Your task to perform on an android device: toggle javascript in the chrome app Image 0: 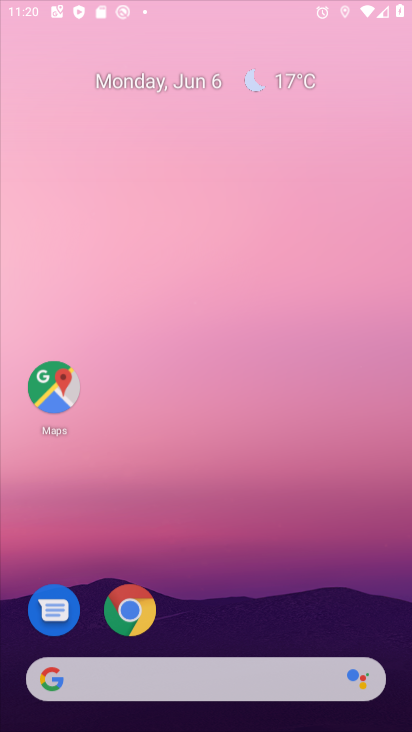
Step 0: press home button
Your task to perform on an android device: toggle javascript in the chrome app Image 1: 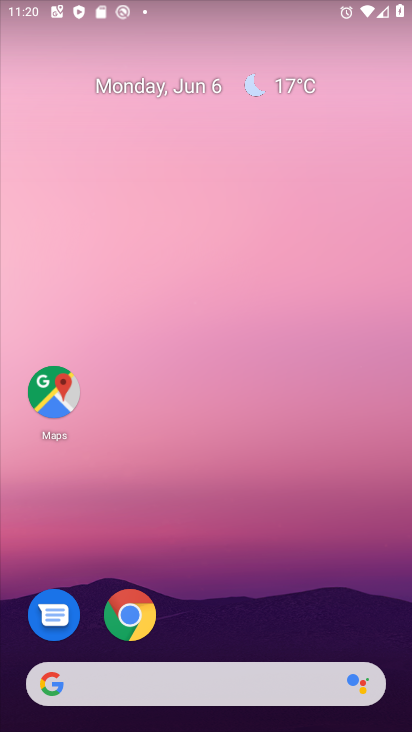
Step 1: click (130, 622)
Your task to perform on an android device: toggle javascript in the chrome app Image 2: 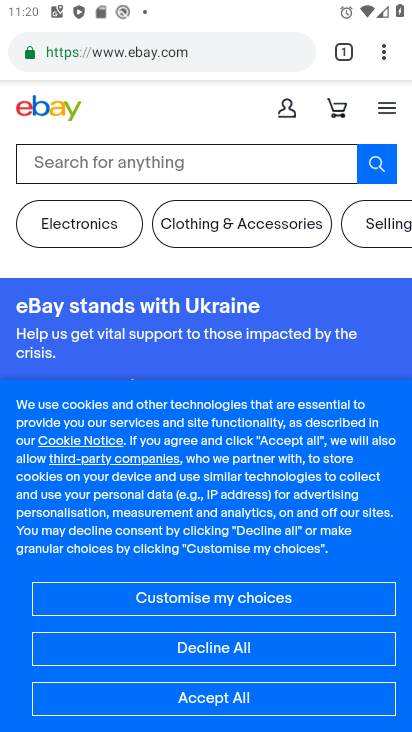
Step 2: press home button
Your task to perform on an android device: toggle javascript in the chrome app Image 3: 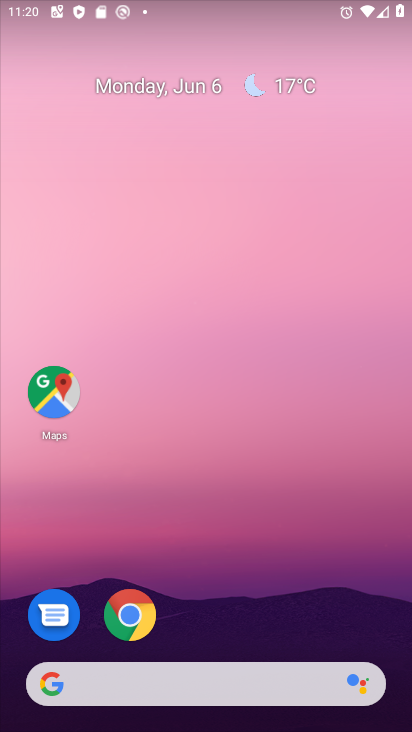
Step 3: click (129, 618)
Your task to perform on an android device: toggle javascript in the chrome app Image 4: 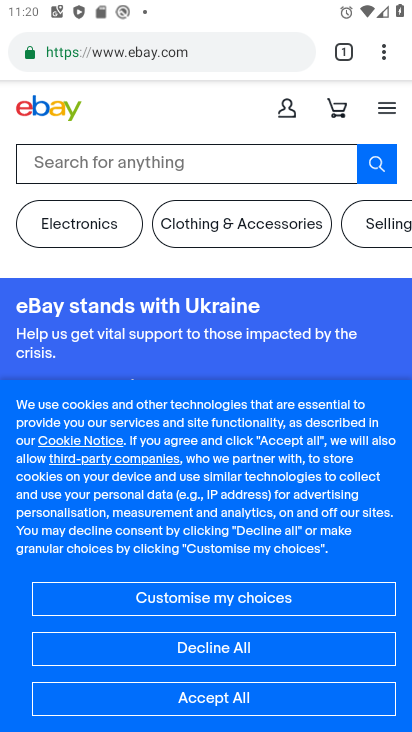
Step 4: click (387, 47)
Your task to perform on an android device: toggle javascript in the chrome app Image 5: 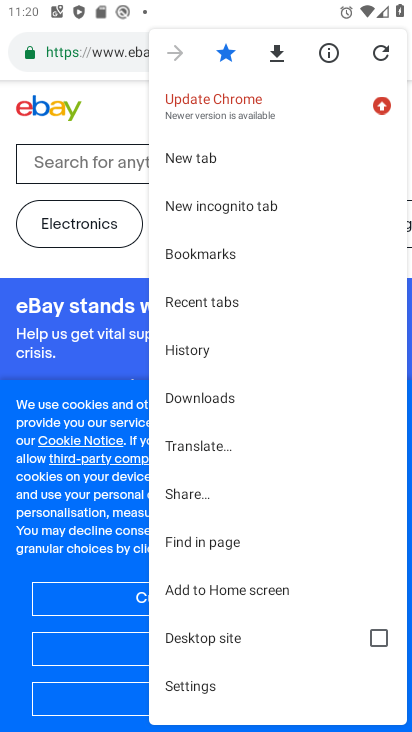
Step 5: click (225, 684)
Your task to perform on an android device: toggle javascript in the chrome app Image 6: 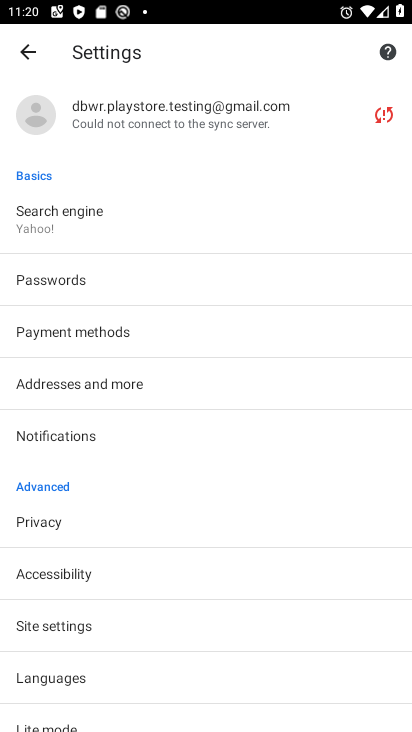
Step 6: click (114, 625)
Your task to perform on an android device: toggle javascript in the chrome app Image 7: 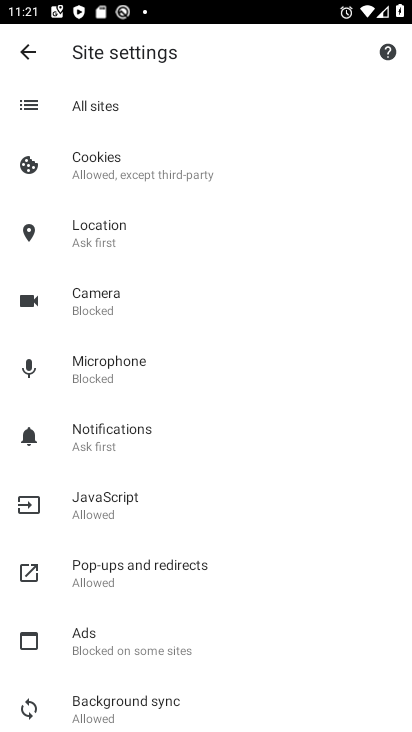
Step 7: click (161, 493)
Your task to perform on an android device: toggle javascript in the chrome app Image 8: 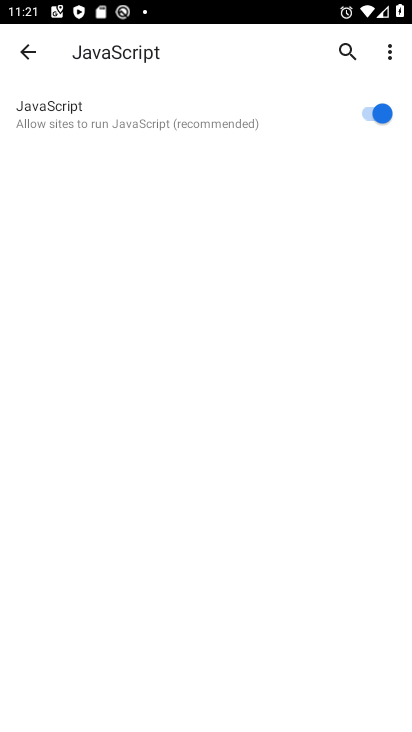
Step 8: click (369, 107)
Your task to perform on an android device: toggle javascript in the chrome app Image 9: 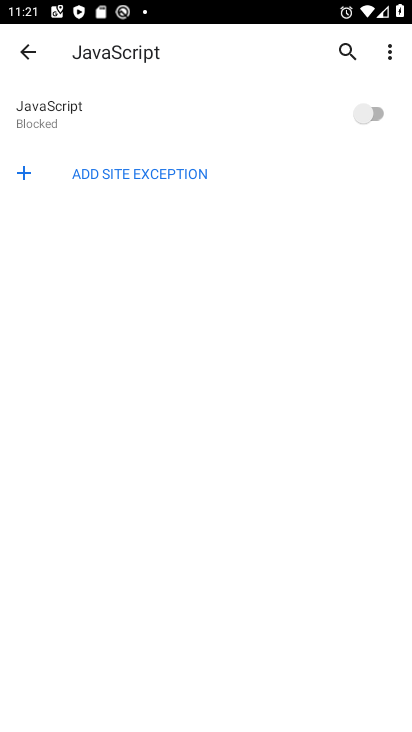
Step 9: task complete